Your task to perform on an android device: Go to accessibility settings Image 0: 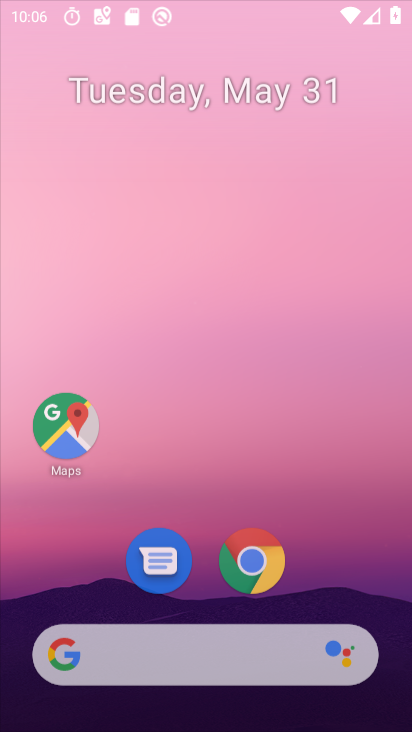
Step 0: click (168, 56)
Your task to perform on an android device: Go to accessibility settings Image 1: 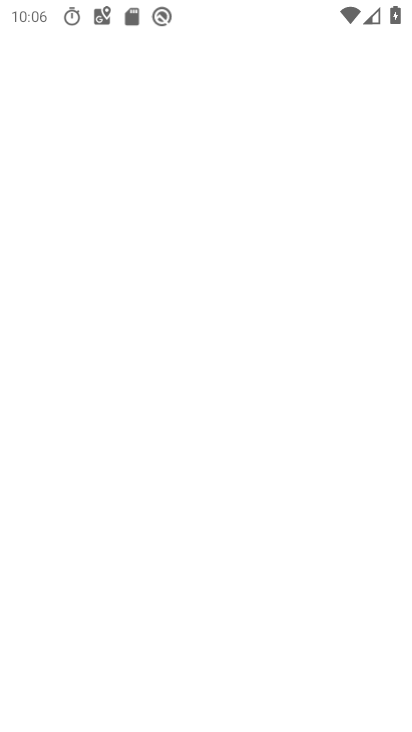
Step 1: drag from (200, 555) to (243, 5)
Your task to perform on an android device: Go to accessibility settings Image 2: 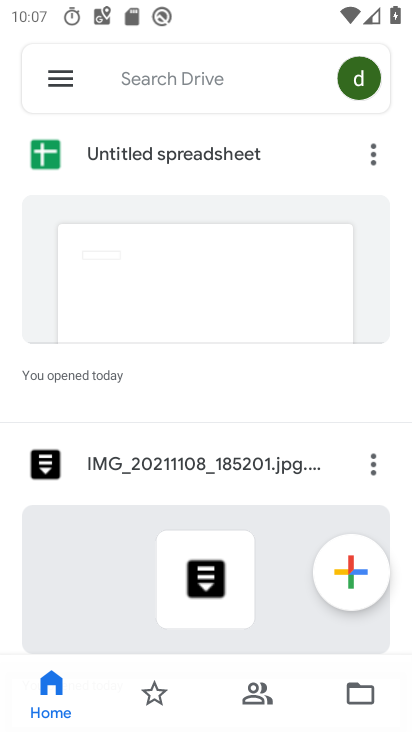
Step 2: press home button
Your task to perform on an android device: Go to accessibility settings Image 3: 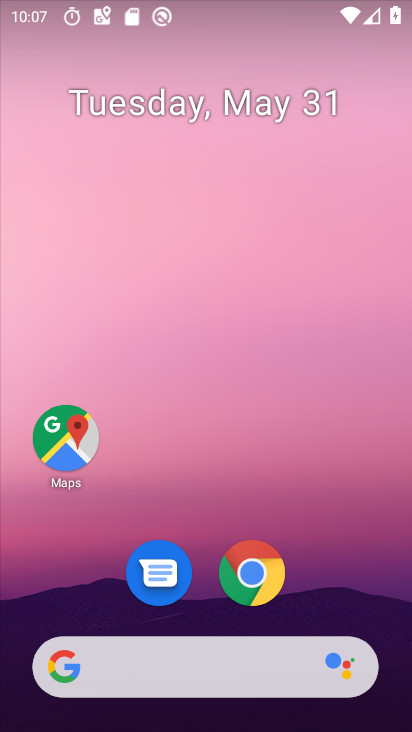
Step 3: drag from (203, 591) to (251, 81)
Your task to perform on an android device: Go to accessibility settings Image 4: 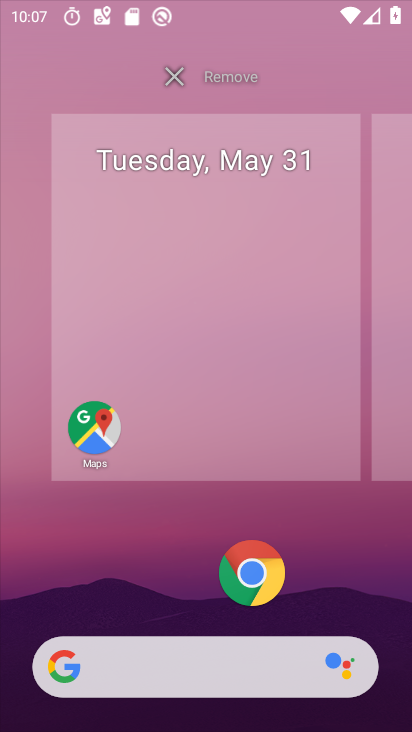
Step 4: drag from (214, 619) to (184, 15)
Your task to perform on an android device: Go to accessibility settings Image 5: 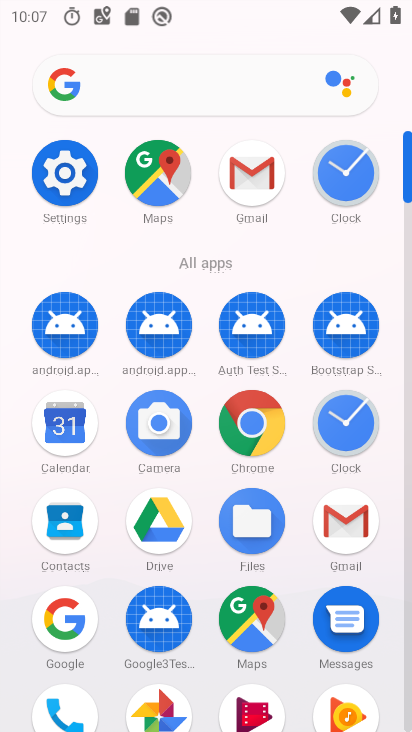
Step 5: click (242, 121)
Your task to perform on an android device: Go to accessibility settings Image 6: 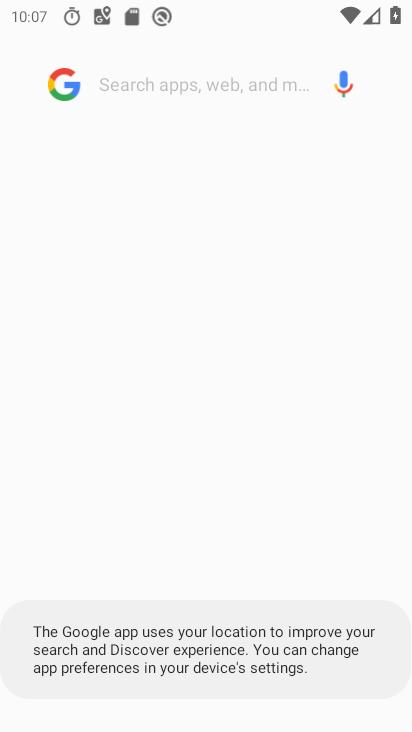
Step 6: click (59, 181)
Your task to perform on an android device: Go to accessibility settings Image 7: 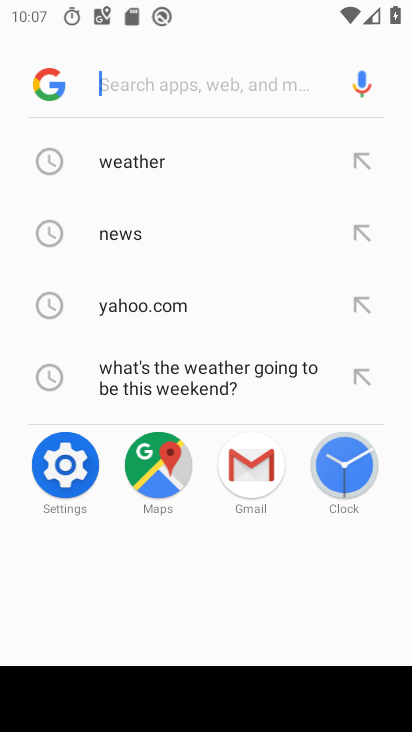
Step 7: click (46, 488)
Your task to perform on an android device: Go to accessibility settings Image 8: 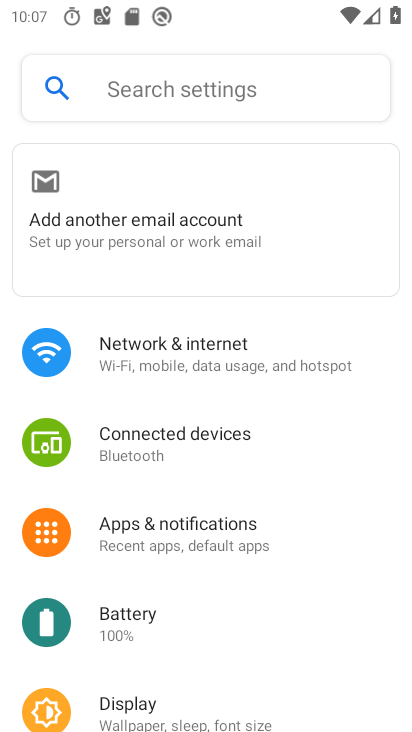
Step 8: drag from (149, 655) to (184, 91)
Your task to perform on an android device: Go to accessibility settings Image 9: 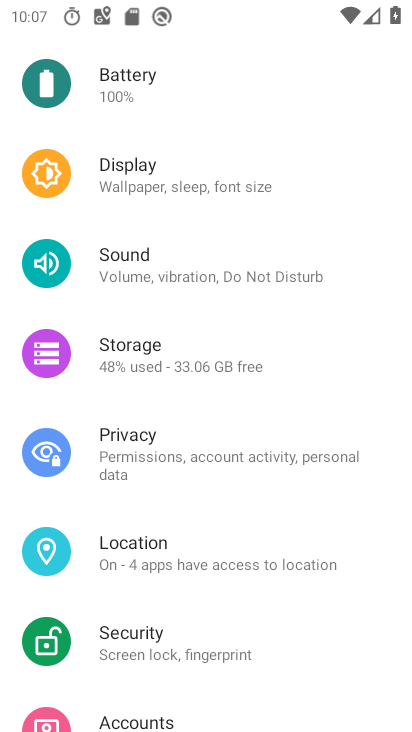
Step 9: drag from (151, 667) to (189, 98)
Your task to perform on an android device: Go to accessibility settings Image 10: 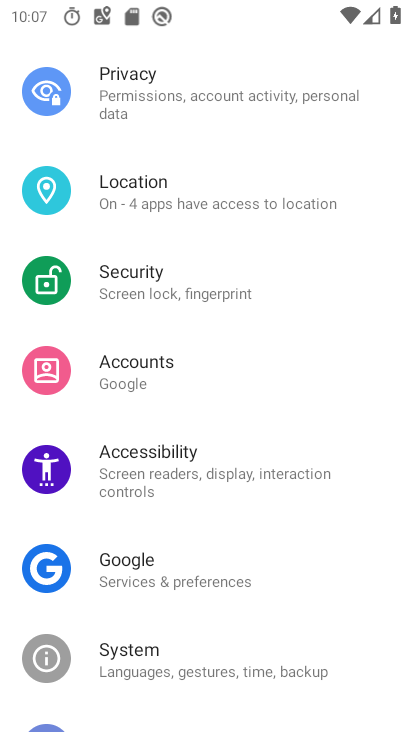
Step 10: click (117, 454)
Your task to perform on an android device: Go to accessibility settings Image 11: 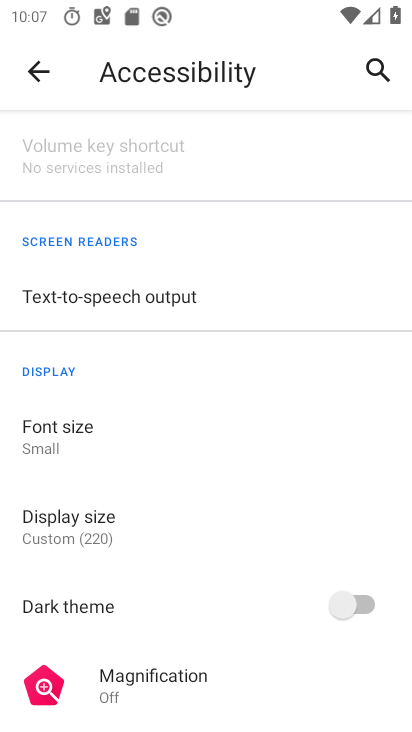
Step 11: task complete